Your task to perform on an android device: Go to CNN.com Image 0: 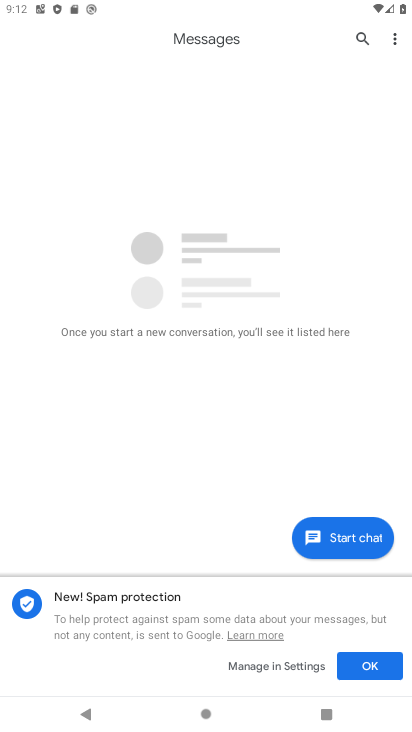
Step 0: drag from (317, 420) to (394, 315)
Your task to perform on an android device: Go to CNN.com Image 1: 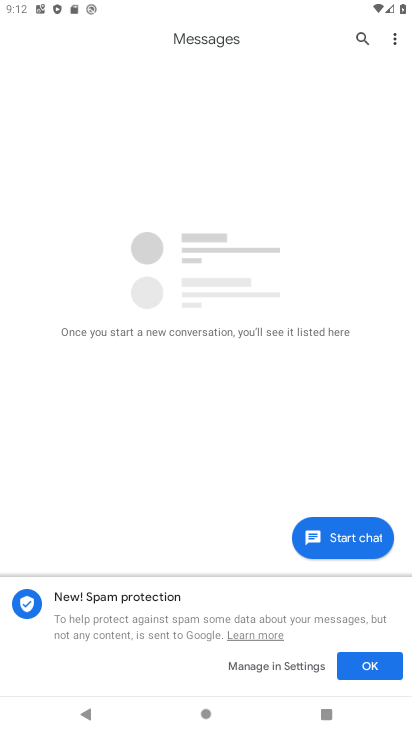
Step 1: press home button
Your task to perform on an android device: Go to CNN.com Image 2: 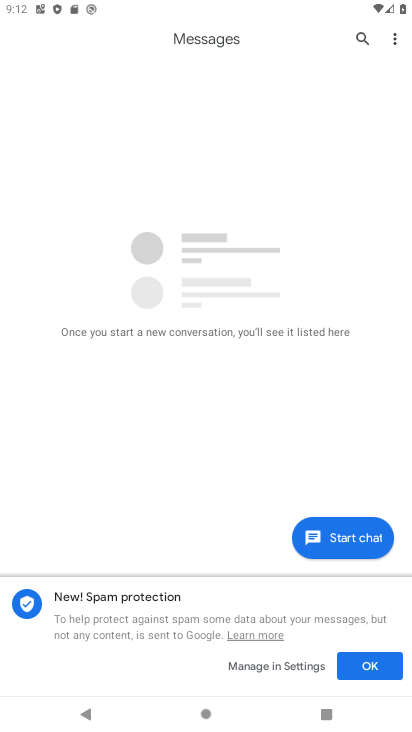
Step 2: drag from (394, 315) to (408, 457)
Your task to perform on an android device: Go to CNN.com Image 3: 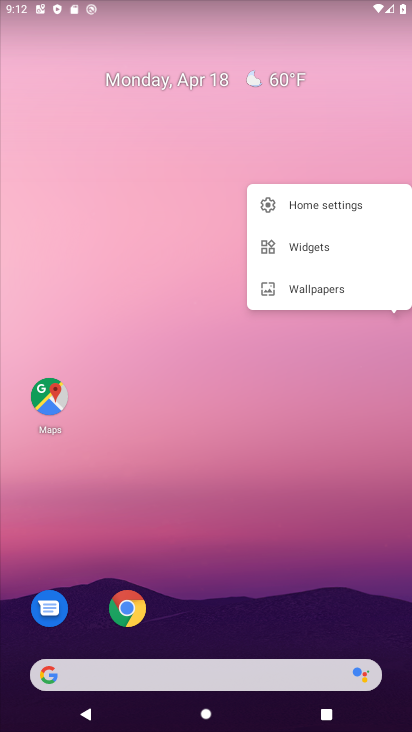
Step 3: drag from (208, 575) to (301, 177)
Your task to perform on an android device: Go to CNN.com Image 4: 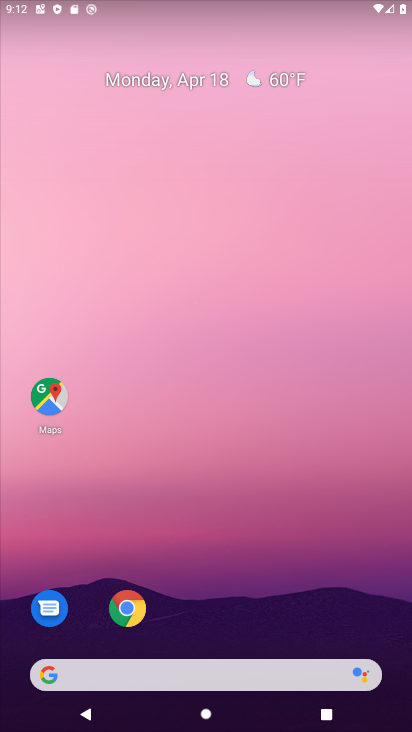
Step 4: drag from (222, 571) to (302, 231)
Your task to perform on an android device: Go to CNN.com Image 5: 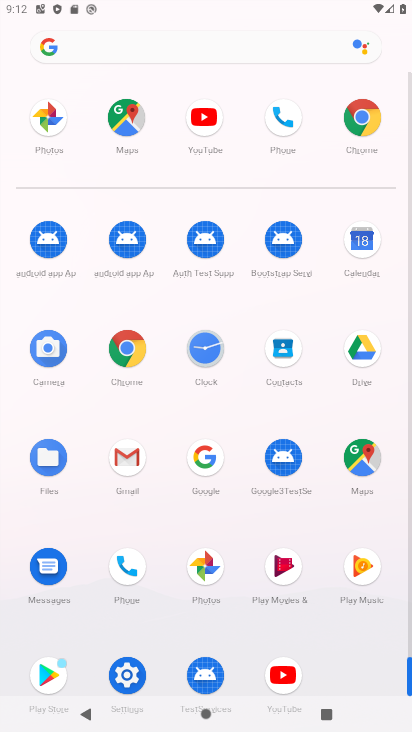
Step 5: click (120, 348)
Your task to perform on an android device: Go to CNN.com Image 6: 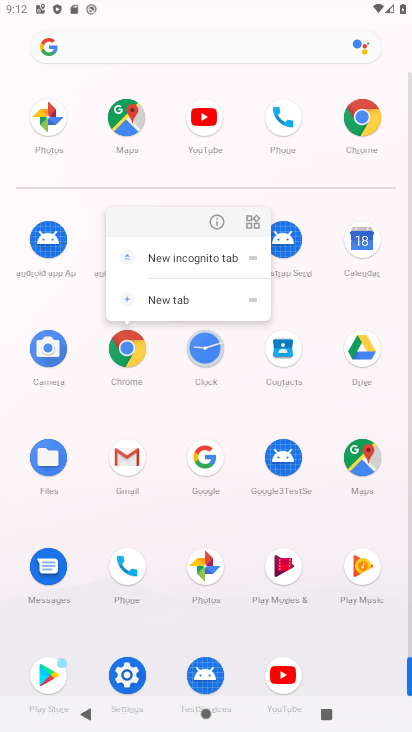
Step 6: click (224, 227)
Your task to perform on an android device: Go to CNN.com Image 7: 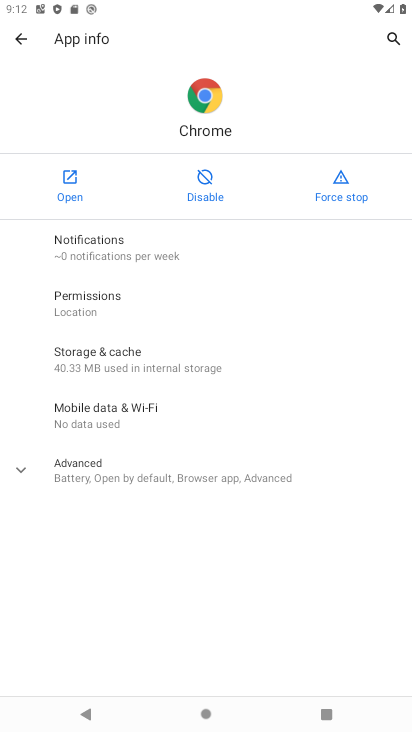
Step 7: click (68, 185)
Your task to perform on an android device: Go to CNN.com Image 8: 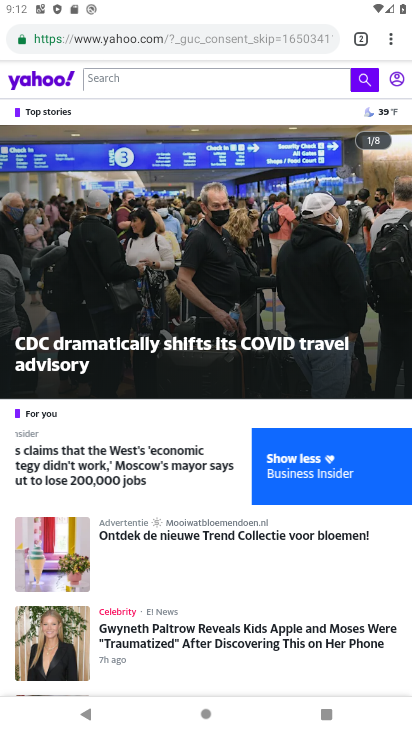
Step 8: click (147, 43)
Your task to perform on an android device: Go to CNN.com Image 9: 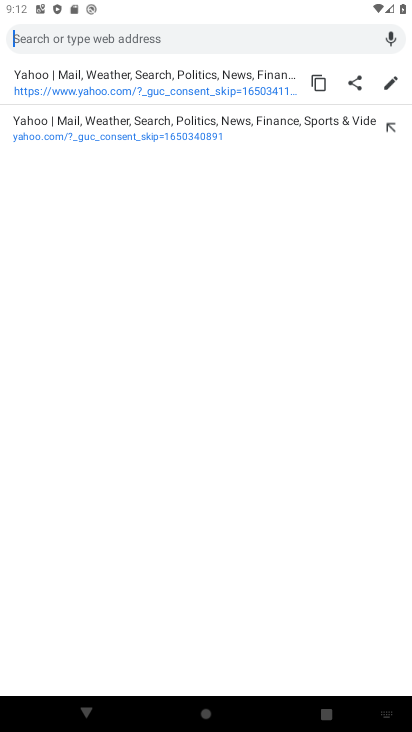
Step 9: click (147, 43)
Your task to perform on an android device: Go to CNN.com Image 10: 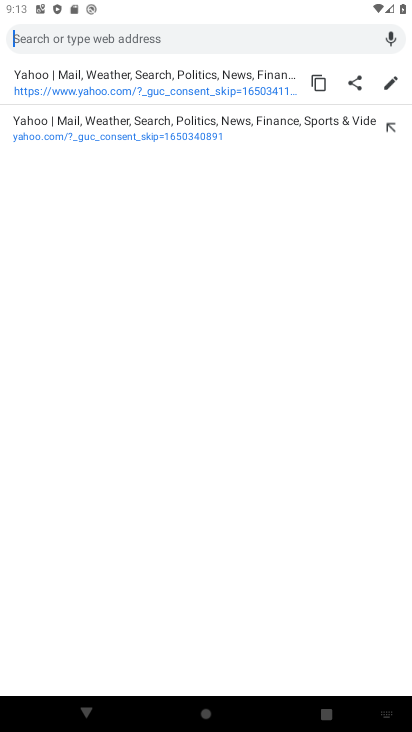
Step 10: click (180, 38)
Your task to perform on an android device: Go to CNN.com Image 11: 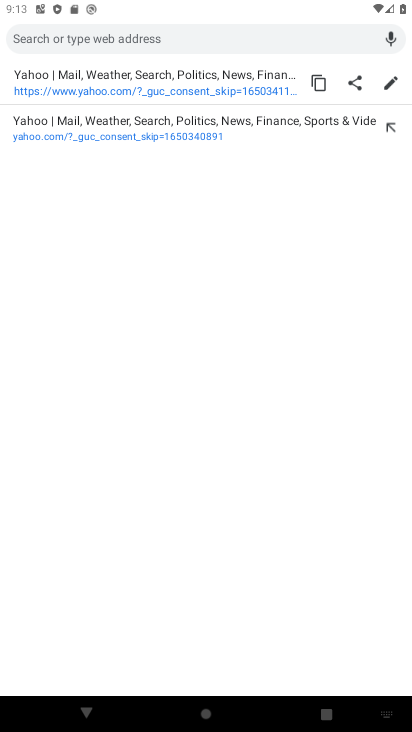
Step 11: type "cnn"
Your task to perform on an android device: Go to CNN.com Image 12: 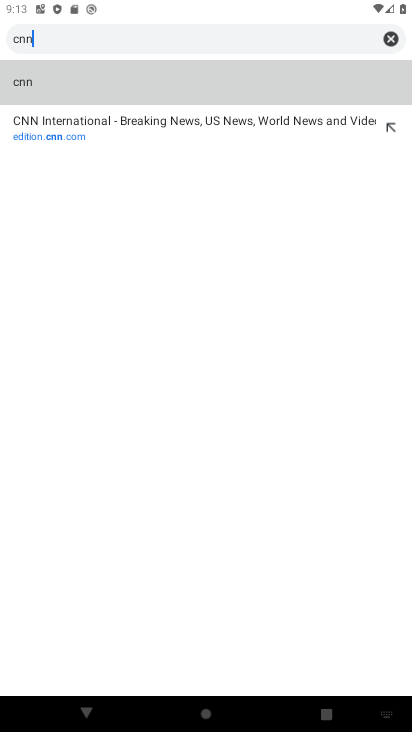
Step 12: click (52, 138)
Your task to perform on an android device: Go to CNN.com Image 13: 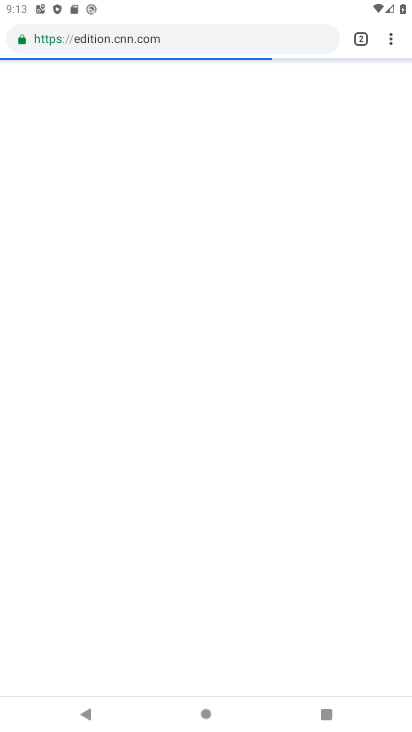
Step 13: task complete